Your task to perform on an android device: change the clock display to show seconds Image 0: 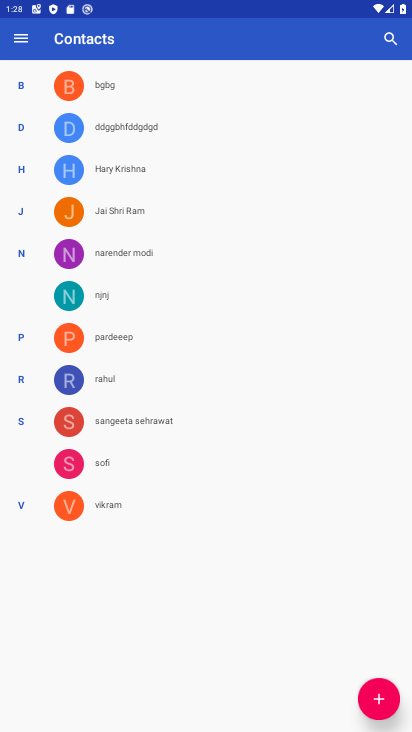
Step 0: press home button
Your task to perform on an android device: change the clock display to show seconds Image 1: 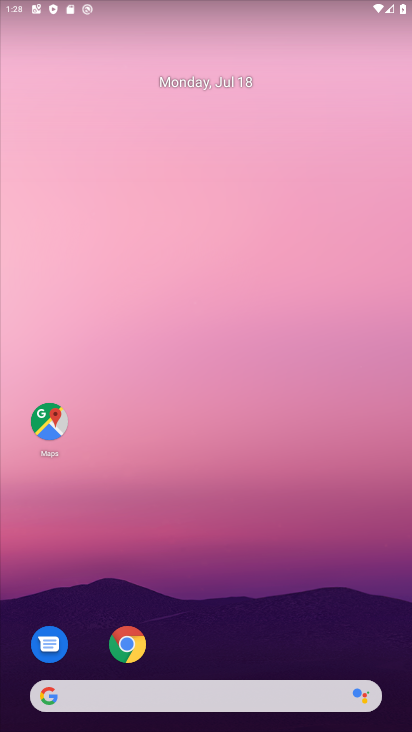
Step 1: click (301, 10)
Your task to perform on an android device: change the clock display to show seconds Image 2: 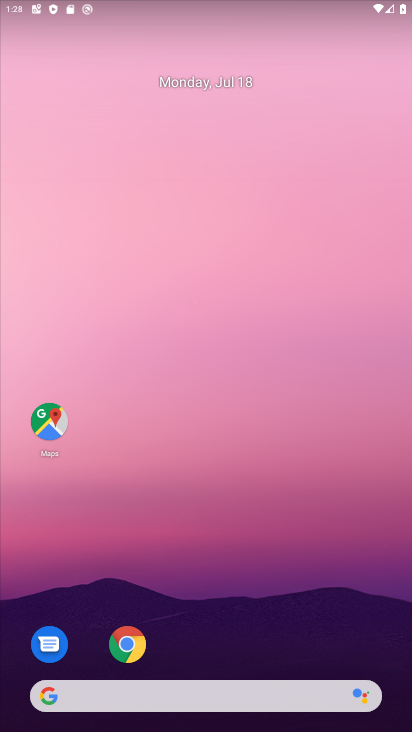
Step 2: drag from (329, 579) to (276, 44)
Your task to perform on an android device: change the clock display to show seconds Image 3: 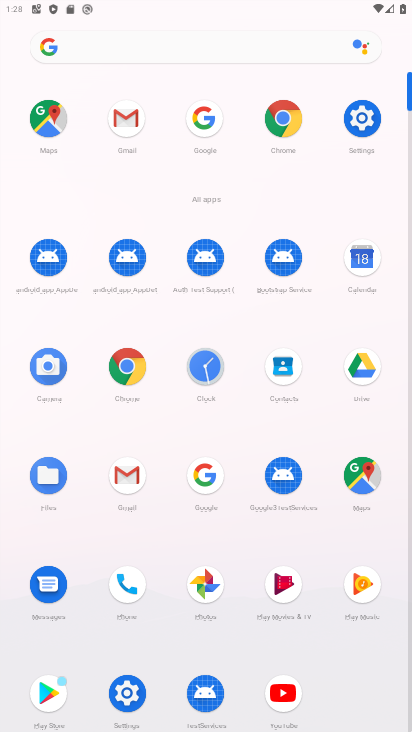
Step 3: click (214, 357)
Your task to perform on an android device: change the clock display to show seconds Image 4: 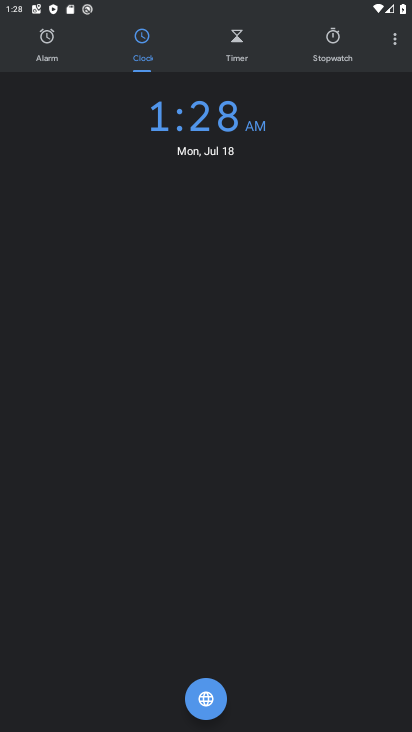
Step 4: click (388, 45)
Your task to perform on an android device: change the clock display to show seconds Image 5: 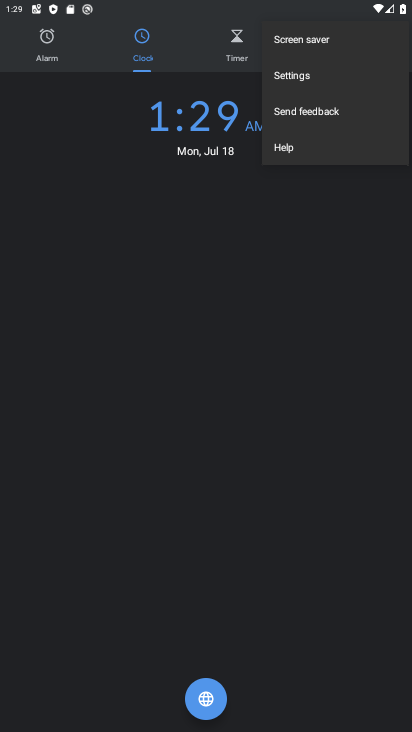
Step 5: click (285, 75)
Your task to perform on an android device: change the clock display to show seconds Image 6: 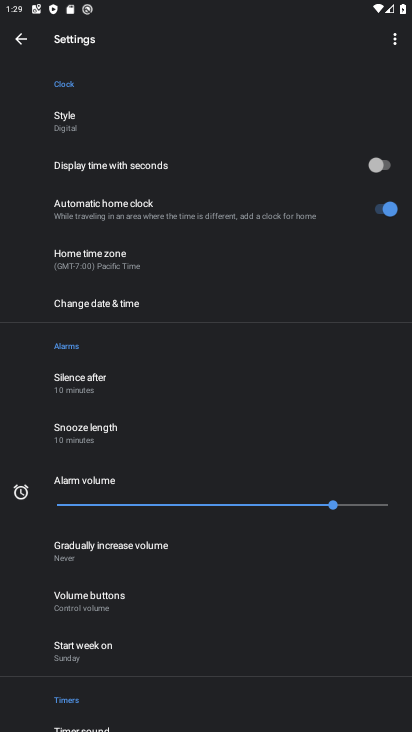
Step 6: click (388, 166)
Your task to perform on an android device: change the clock display to show seconds Image 7: 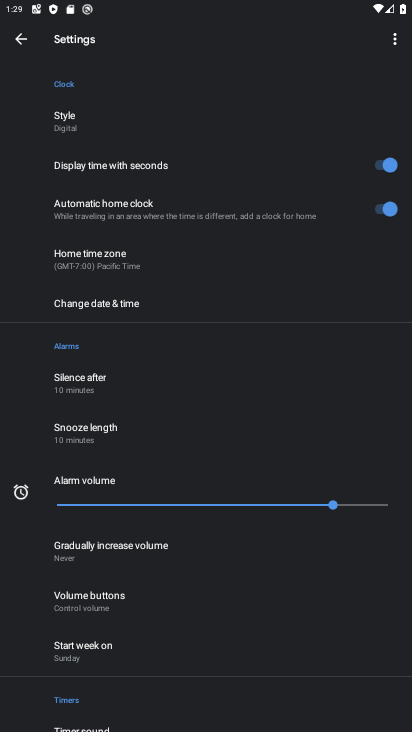
Step 7: task complete